Your task to perform on an android device: Clear the shopping cart on amazon. Search for "corsair k70" on amazon, select the first entry, add it to the cart, then select checkout. Image 0: 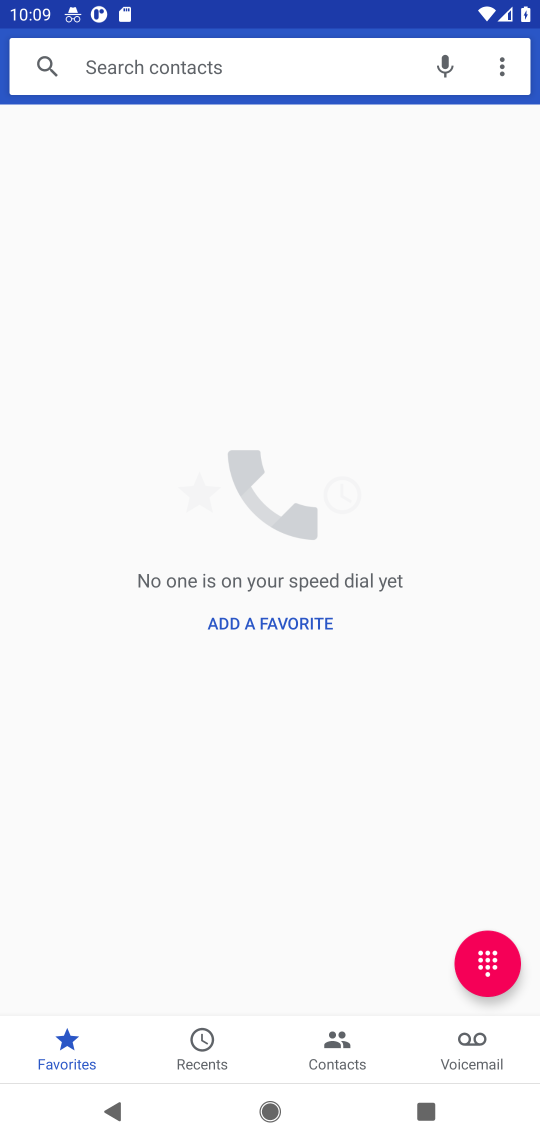
Step 0: press home button
Your task to perform on an android device: Clear the shopping cart on amazon. Search for "corsair k70" on amazon, select the first entry, add it to the cart, then select checkout. Image 1: 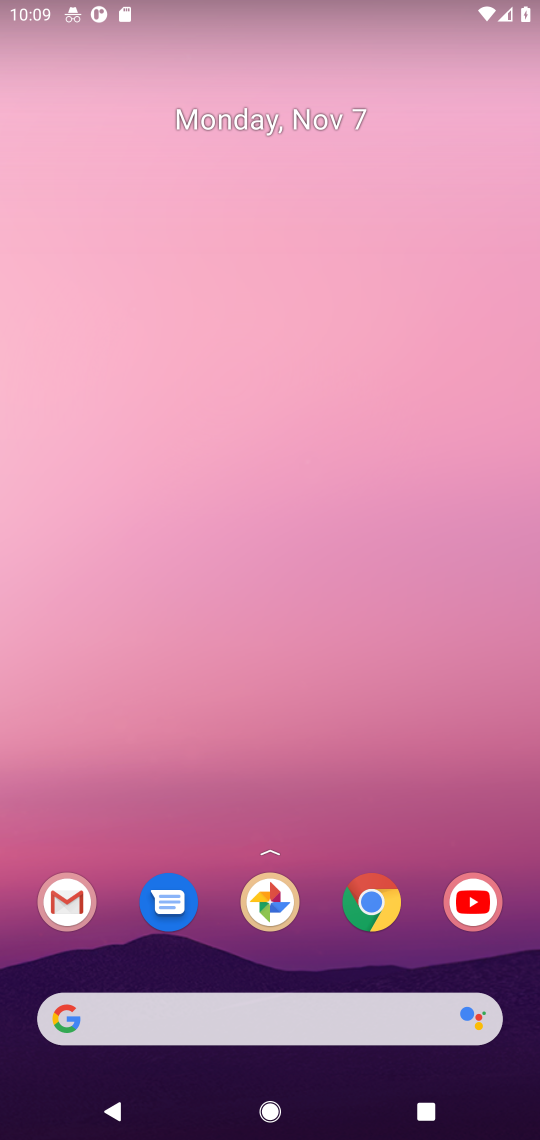
Step 1: click (377, 906)
Your task to perform on an android device: Clear the shopping cart on amazon. Search for "corsair k70" on amazon, select the first entry, add it to the cart, then select checkout. Image 2: 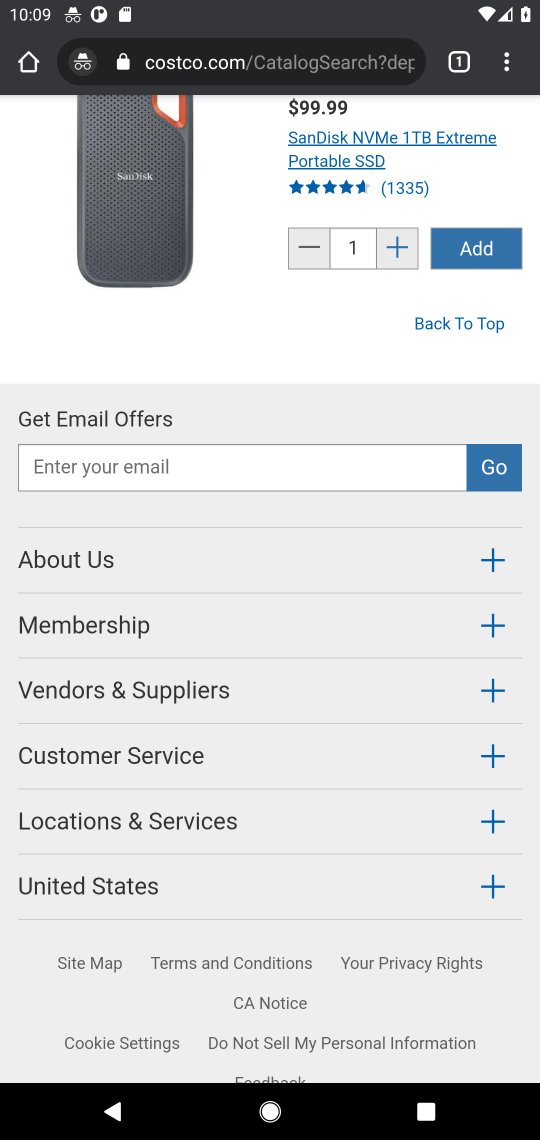
Step 2: click (219, 72)
Your task to perform on an android device: Clear the shopping cart on amazon. Search for "corsair k70" on amazon, select the first entry, add it to the cart, then select checkout. Image 3: 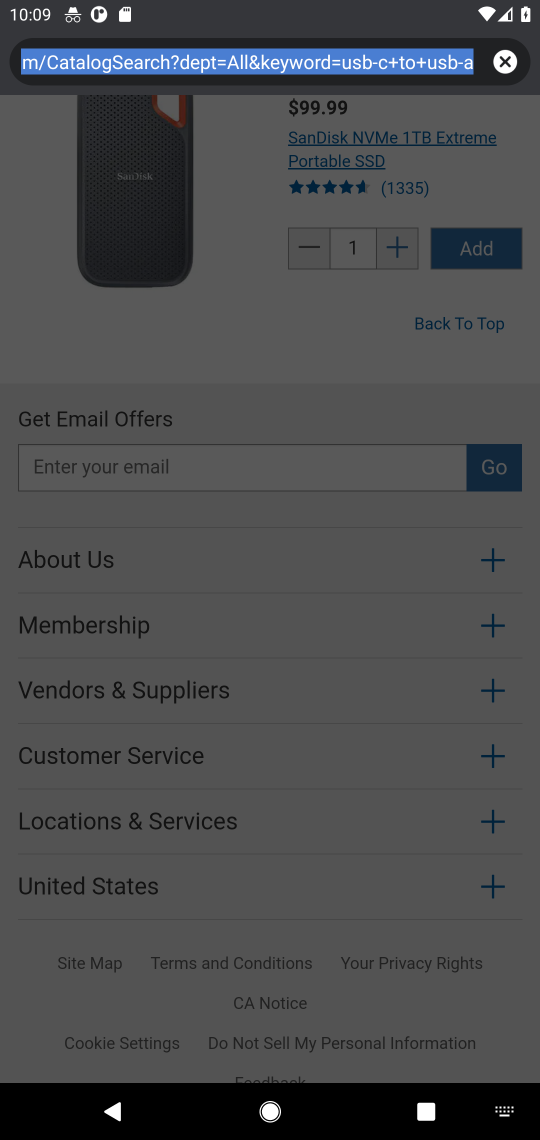
Step 3: click (507, 64)
Your task to perform on an android device: Clear the shopping cart on amazon. Search for "corsair k70" on amazon, select the first entry, add it to the cart, then select checkout. Image 4: 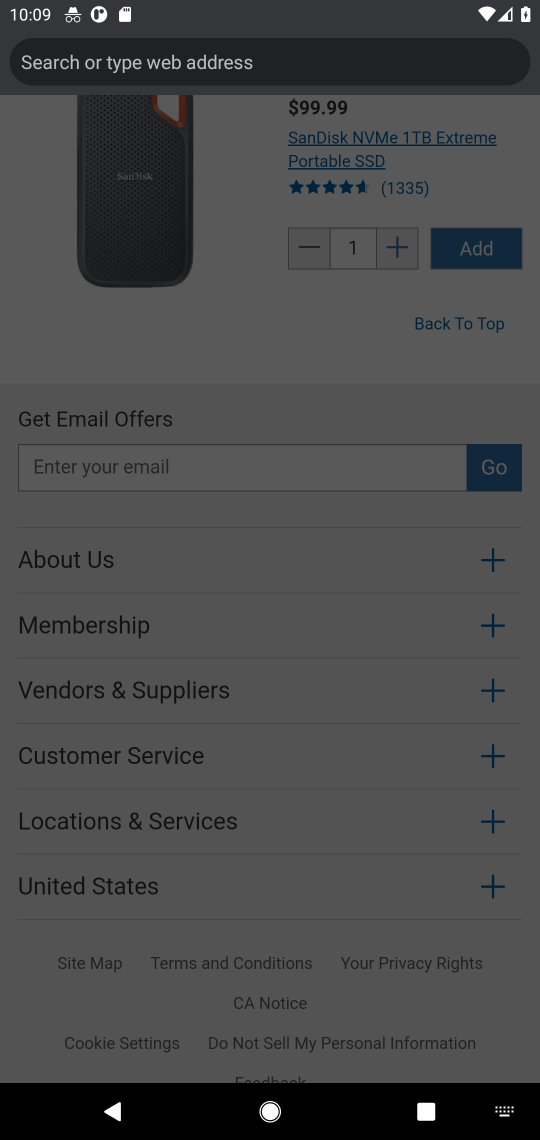
Step 4: type "amazon.com"
Your task to perform on an android device: Clear the shopping cart on amazon. Search for "corsair k70" on amazon, select the first entry, add it to the cart, then select checkout. Image 5: 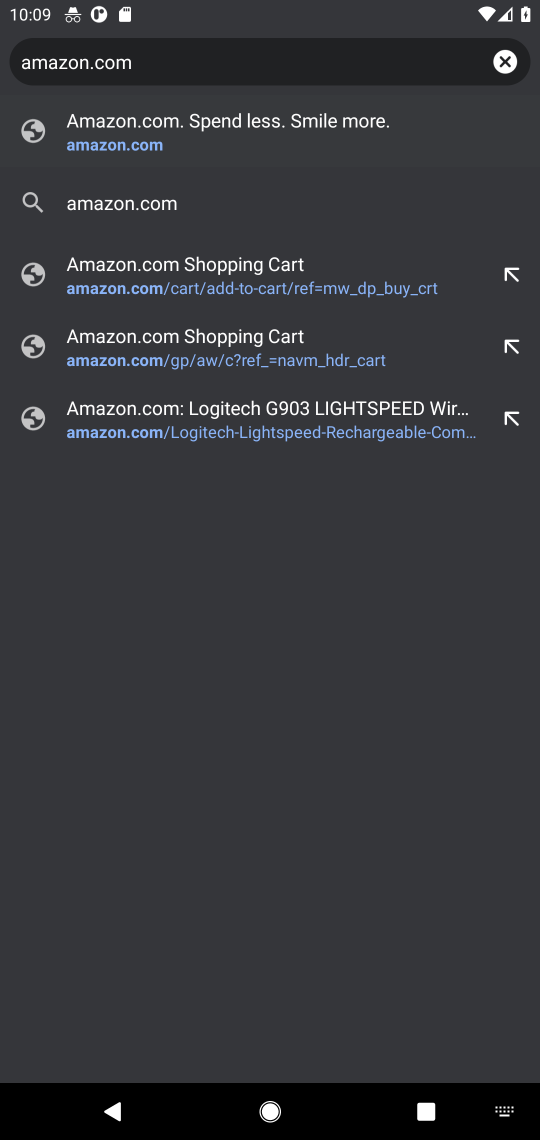
Step 5: click (83, 149)
Your task to perform on an android device: Clear the shopping cart on amazon. Search for "corsair k70" on amazon, select the first entry, add it to the cart, then select checkout. Image 6: 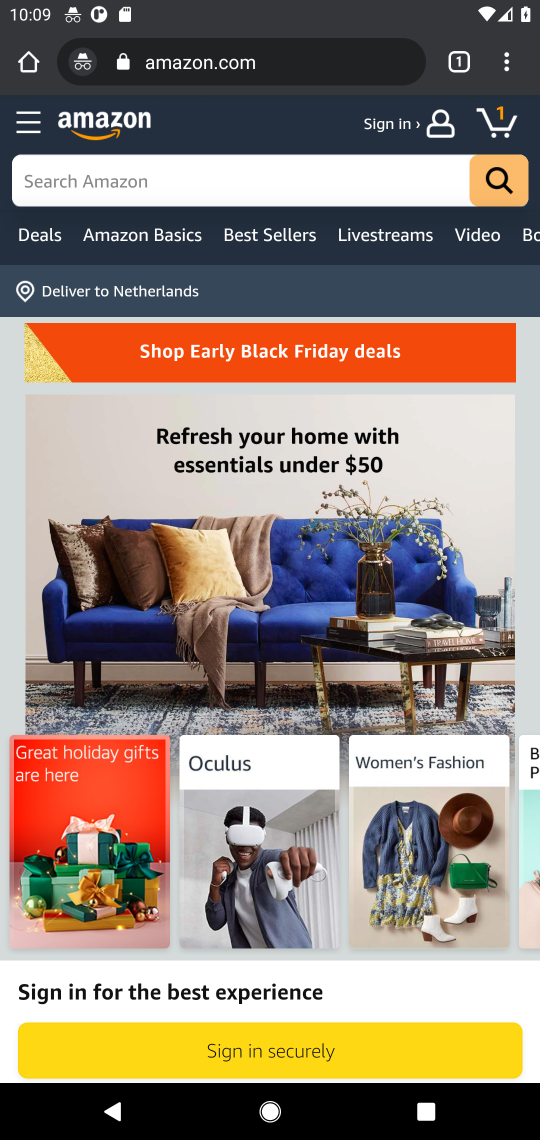
Step 6: click (502, 118)
Your task to perform on an android device: Clear the shopping cart on amazon. Search for "corsair k70" on amazon, select the first entry, add it to the cart, then select checkout. Image 7: 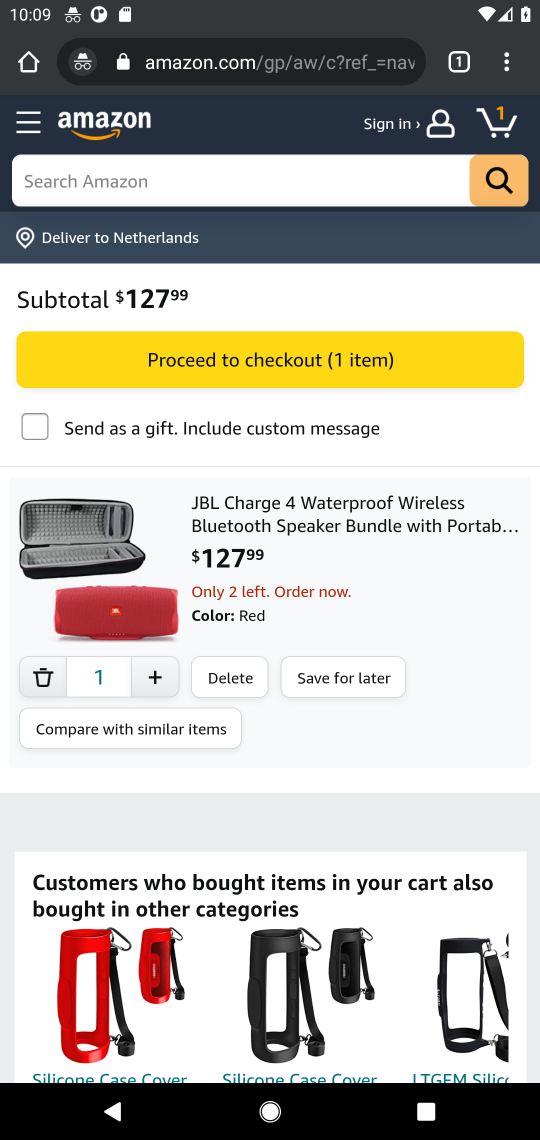
Step 7: click (220, 679)
Your task to perform on an android device: Clear the shopping cart on amazon. Search for "corsair k70" on amazon, select the first entry, add it to the cart, then select checkout. Image 8: 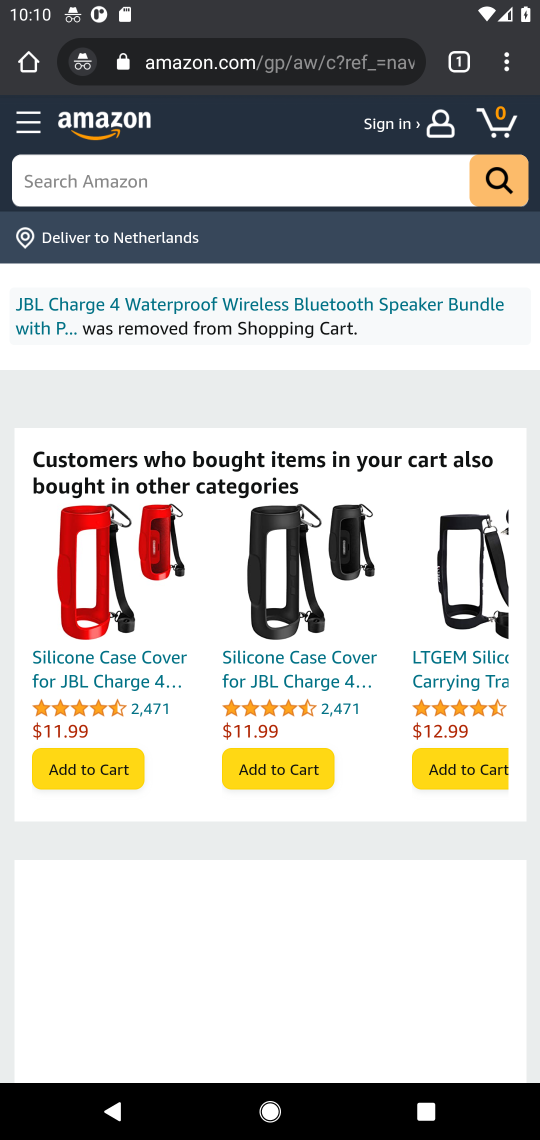
Step 8: click (210, 190)
Your task to perform on an android device: Clear the shopping cart on amazon. Search for "corsair k70" on amazon, select the first entry, add it to the cart, then select checkout. Image 9: 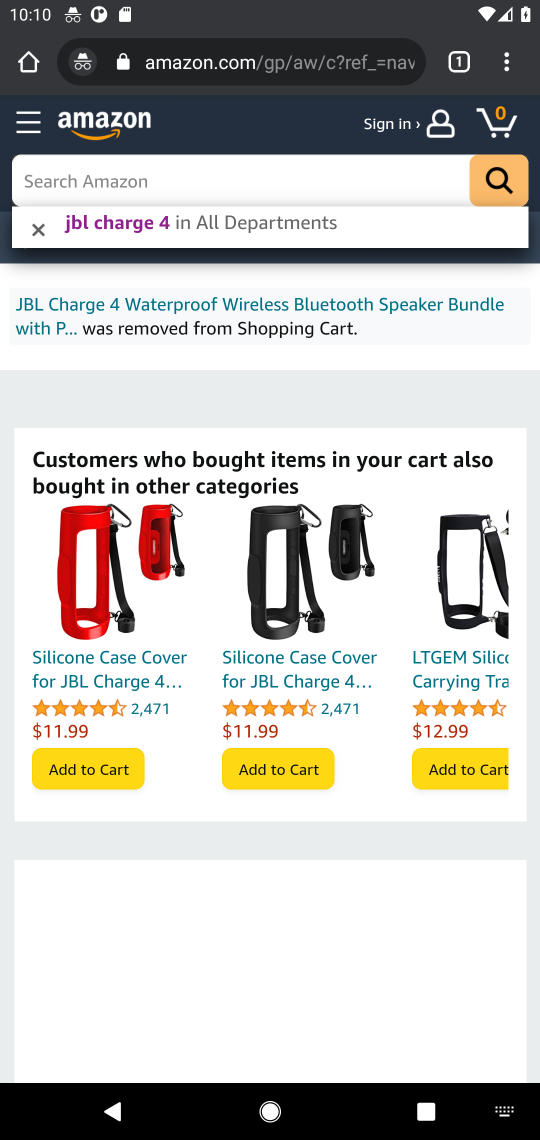
Step 9: type "corsair k70"
Your task to perform on an android device: Clear the shopping cart on amazon. Search for "corsair k70" on amazon, select the first entry, add it to the cart, then select checkout. Image 10: 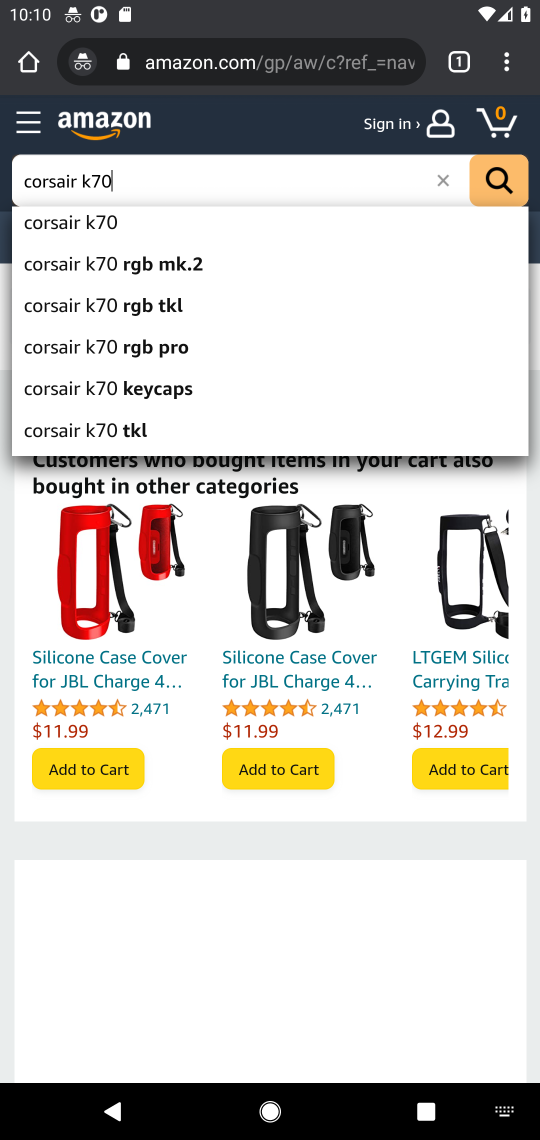
Step 10: click (69, 230)
Your task to perform on an android device: Clear the shopping cart on amazon. Search for "corsair k70" on amazon, select the first entry, add it to the cart, then select checkout. Image 11: 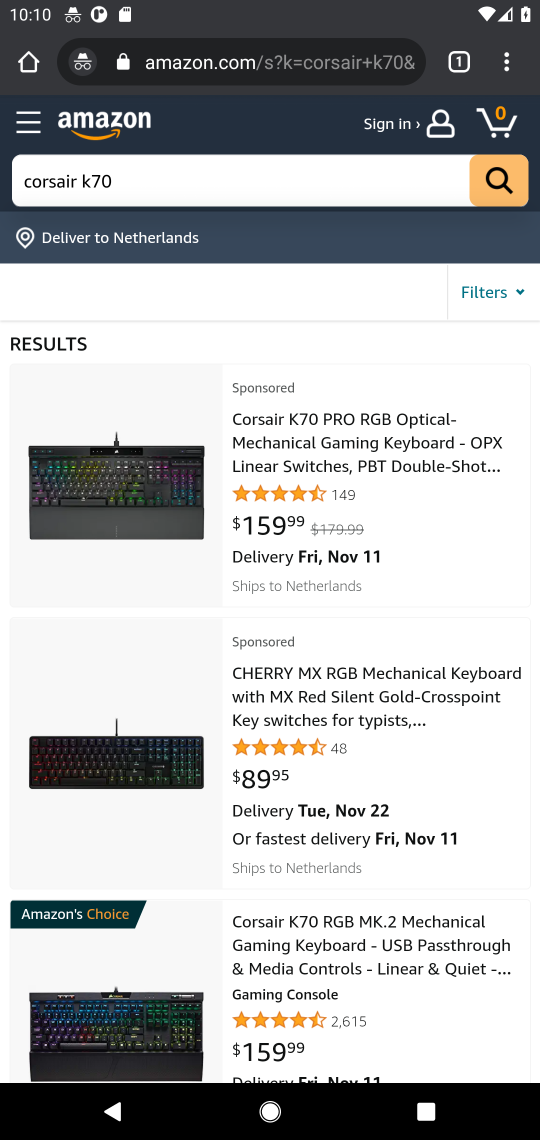
Step 11: click (255, 485)
Your task to perform on an android device: Clear the shopping cart on amazon. Search for "corsair k70" on amazon, select the first entry, add it to the cart, then select checkout. Image 12: 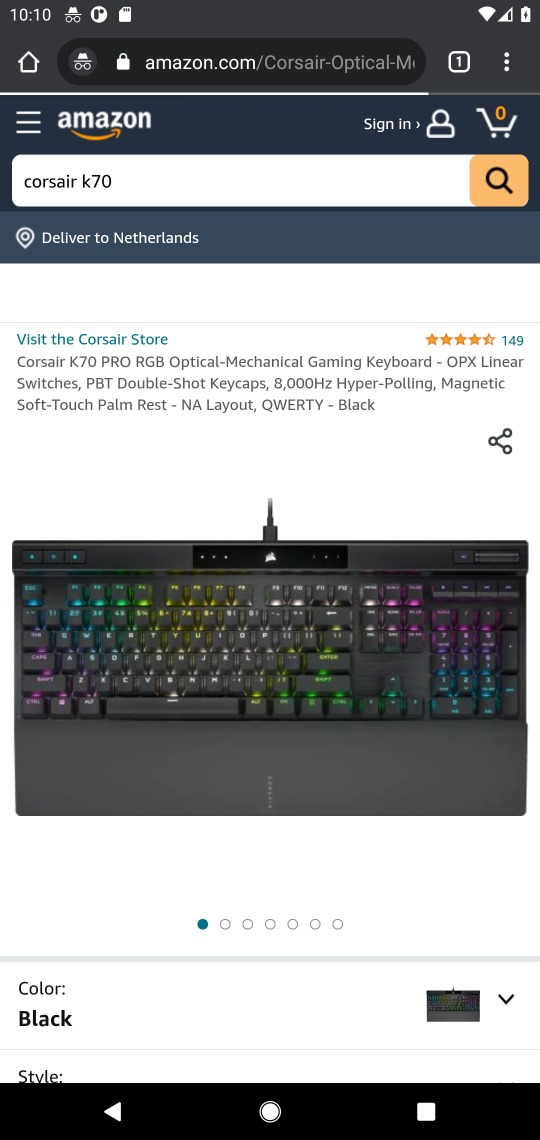
Step 12: drag from (277, 804) to (266, 435)
Your task to perform on an android device: Clear the shopping cart on amazon. Search for "corsair k70" on amazon, select the first entry, add it to the cart, then select checkout. Image 13: 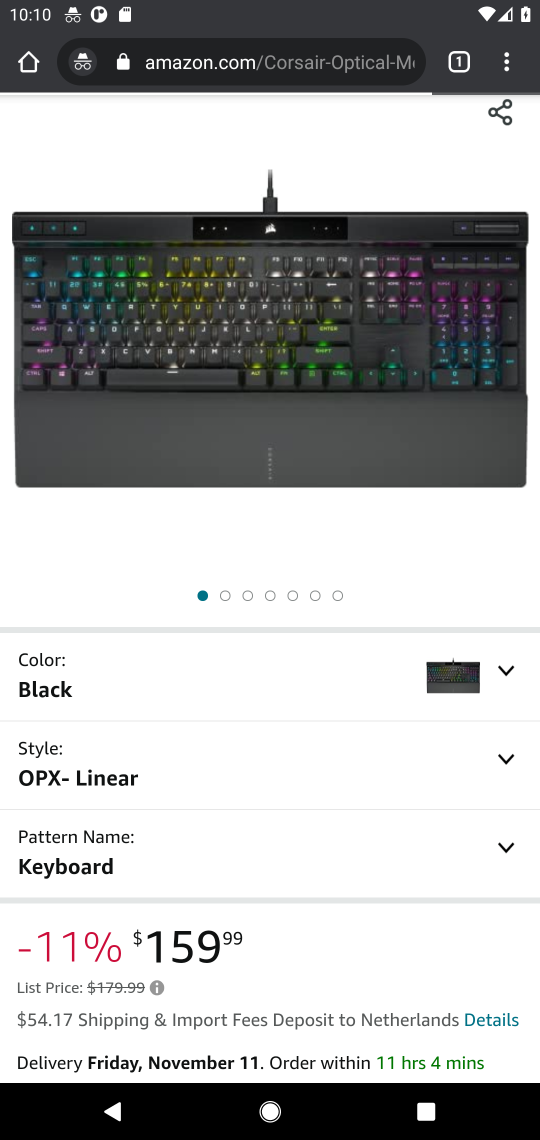
Step 13: drag from (229, 810) to (226, 405)
Your task to perform on an android device: Clear the shopping cart on amazon. Search for "corsair k70" on amazon, select the first entry, add it to the cart, then select checkout. Image 14: 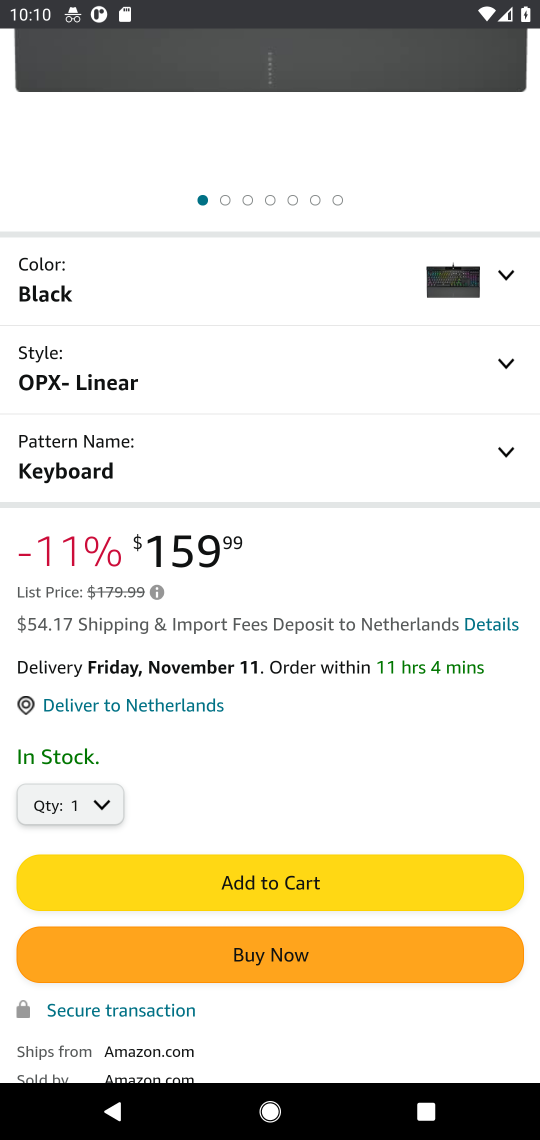
Step 14: click (254, 875)
Your task to perform on an android device: Clear the shopping cart on amazon. Search for "corsair k70" on amazon, select the first entry, add it to the cart, then select checkout. Image 15: 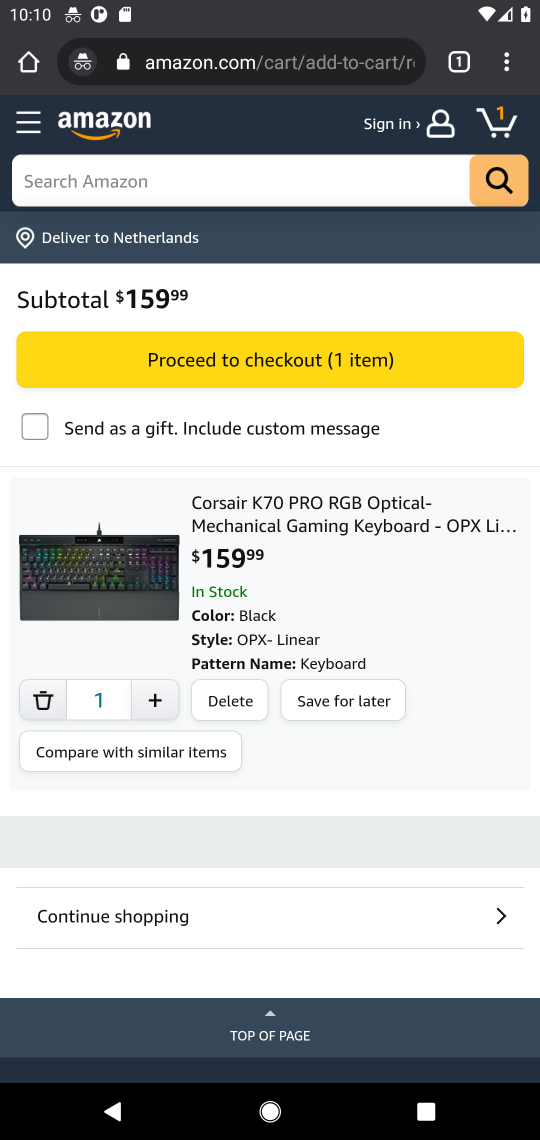
Step 15: click (227, 360)
Your task to perform on an android device: Clear the shopping cart on amazon. Search for "corsair k70" on amazon, select the first entry, add it to the cart, then select checkout. Image 16: 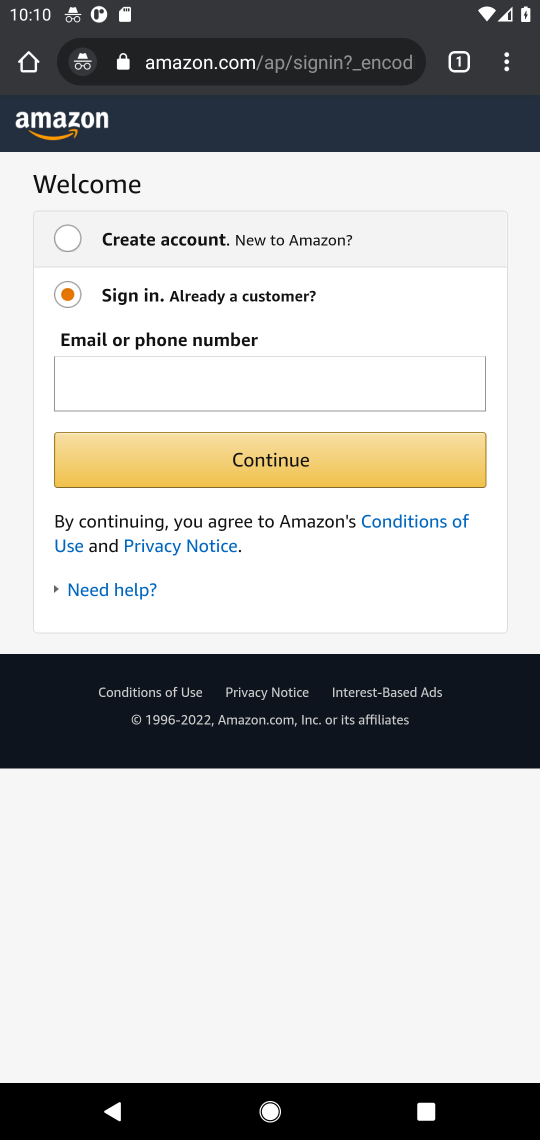
Step 16: task complete